Your task to perform on an android device: toggle priority inbox in the gmail app Image 0: 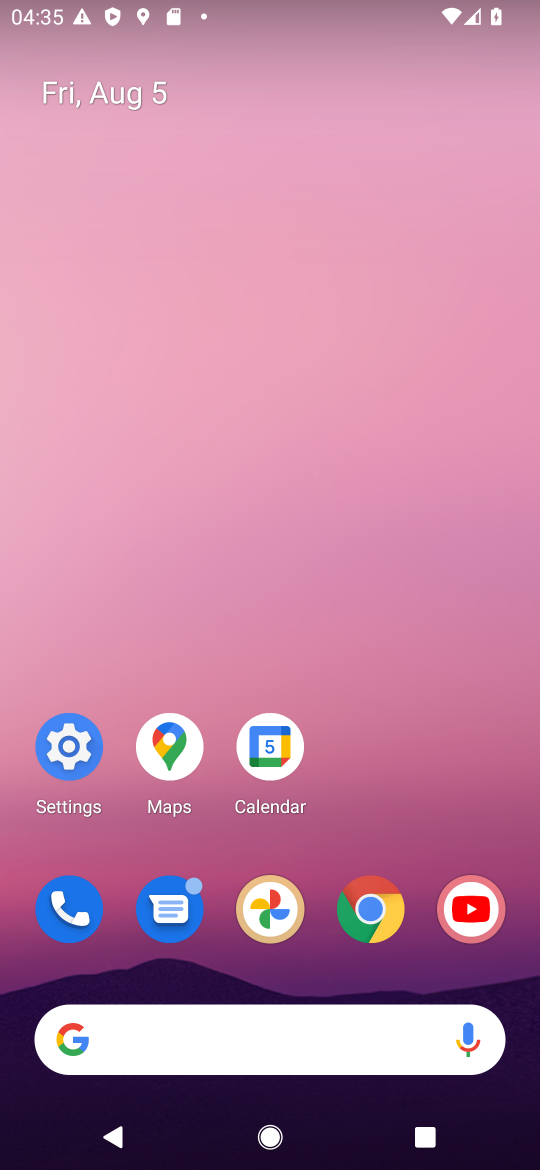
Step 0: drag from (382, 786) to (366, 104)
Your task to perform on an android device: toggle priority inbox in the gmail app Image 1: 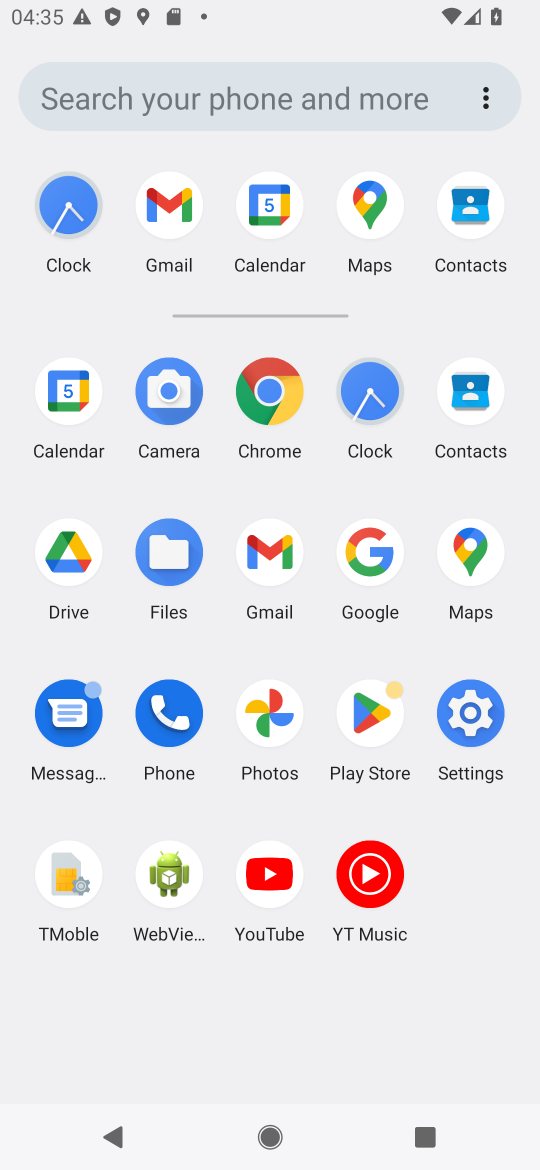
Step 1: click (159, 204)
Your task to perform on an android device: toggle priority inbox in the gmail app Image 2: 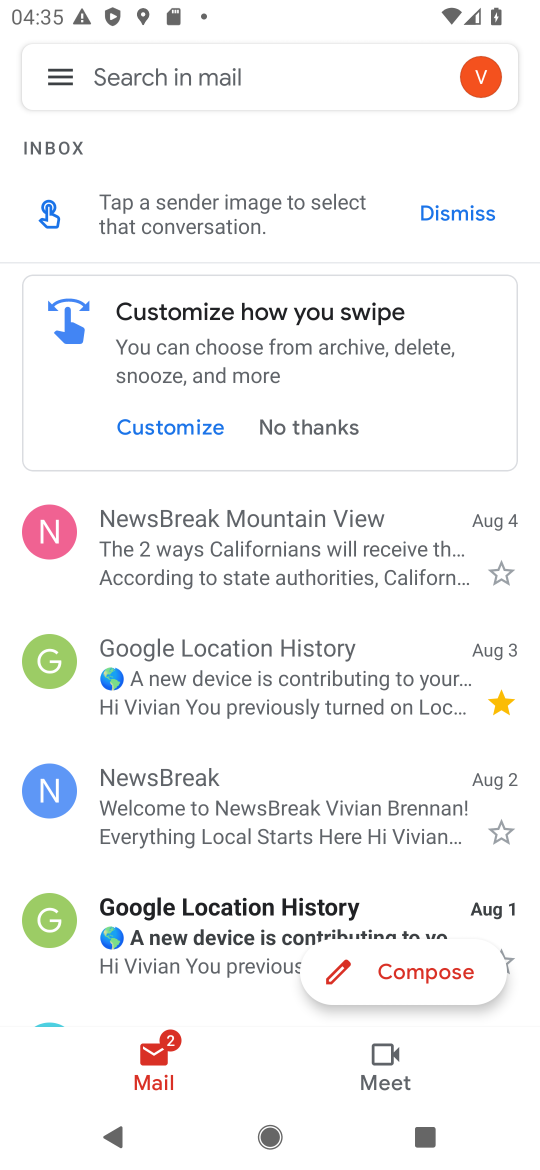
Step 2: click (55, 70)
Your task to perform on an android device: toggle priority inbox in the gmail app Image 3: 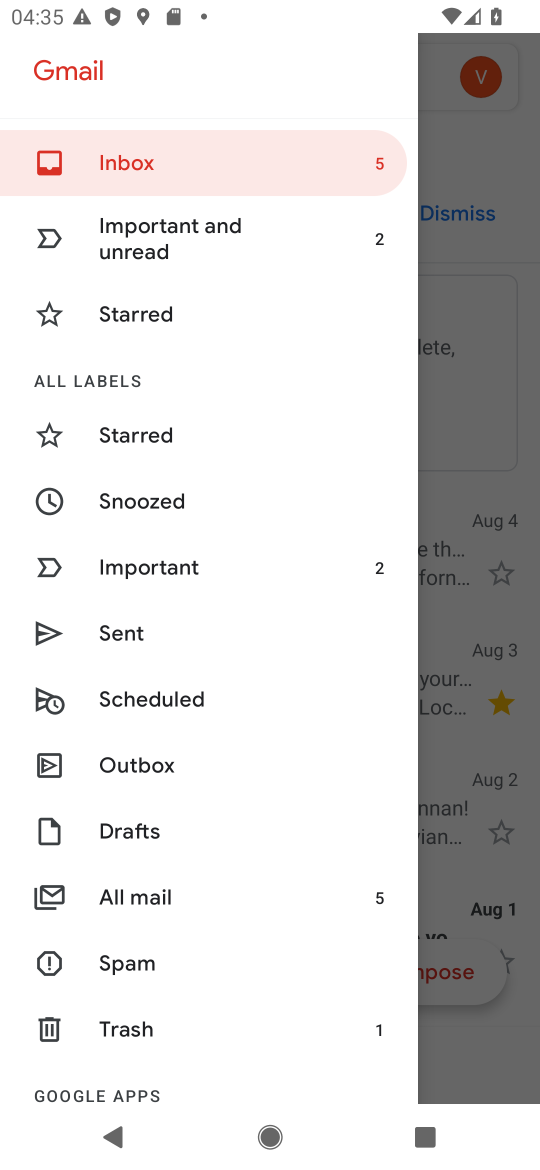
Step 3: drag from (236, 1025) to (249, 522)
Your task to perform on an android device: toggle priority inbox in the gmail app Image 4: 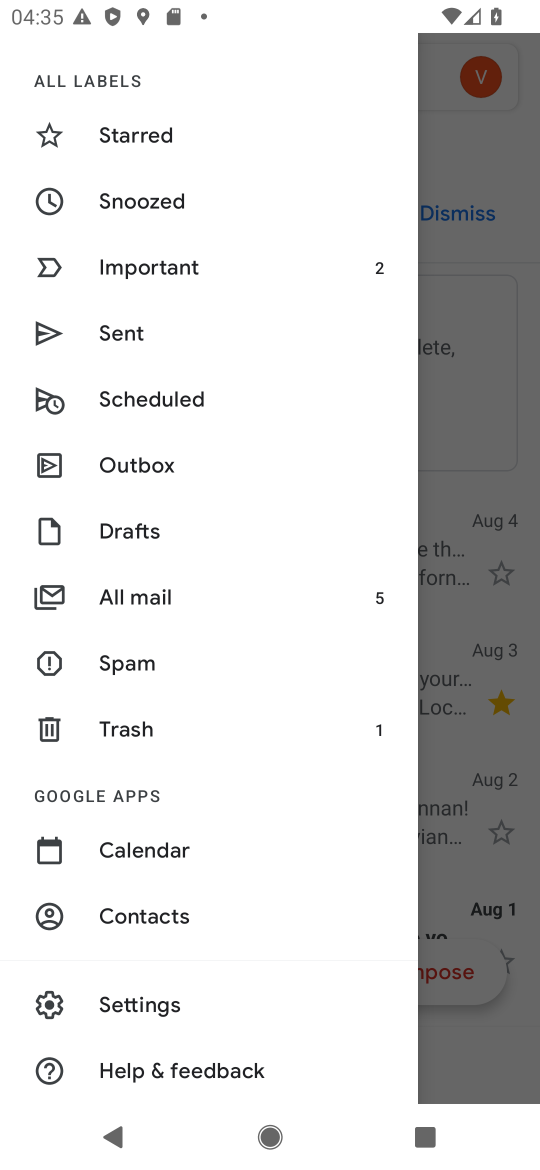
Step 4: click (134, 1003)
Your task to perform on an android device: toggle priority inbox in the gmail app Image 5: 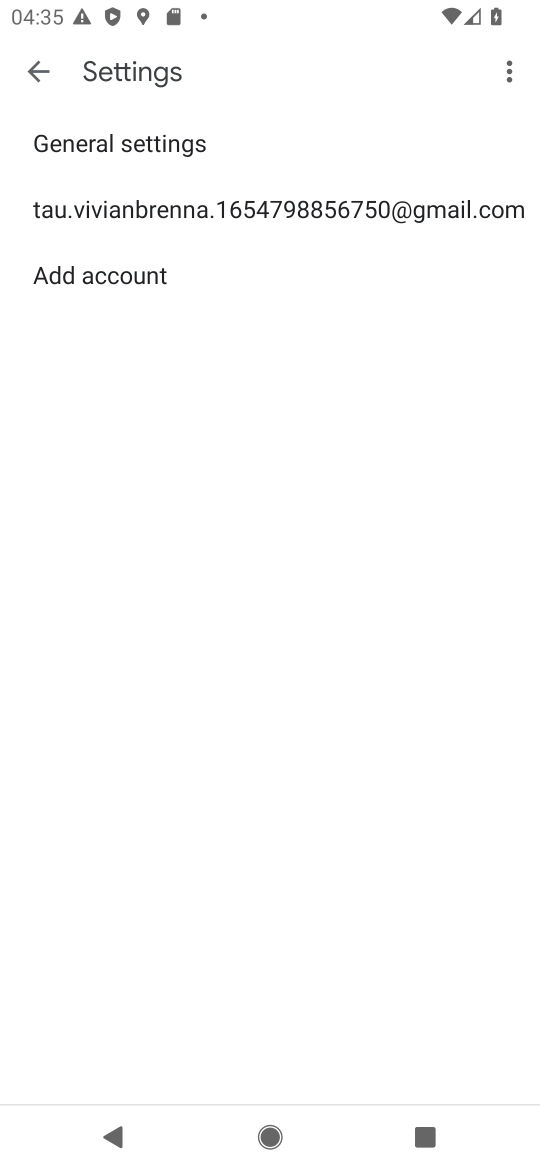
Step 5: click (170, 200)
Your task to perform on an android device: toggle priority inbox in the gmail app Image 6: 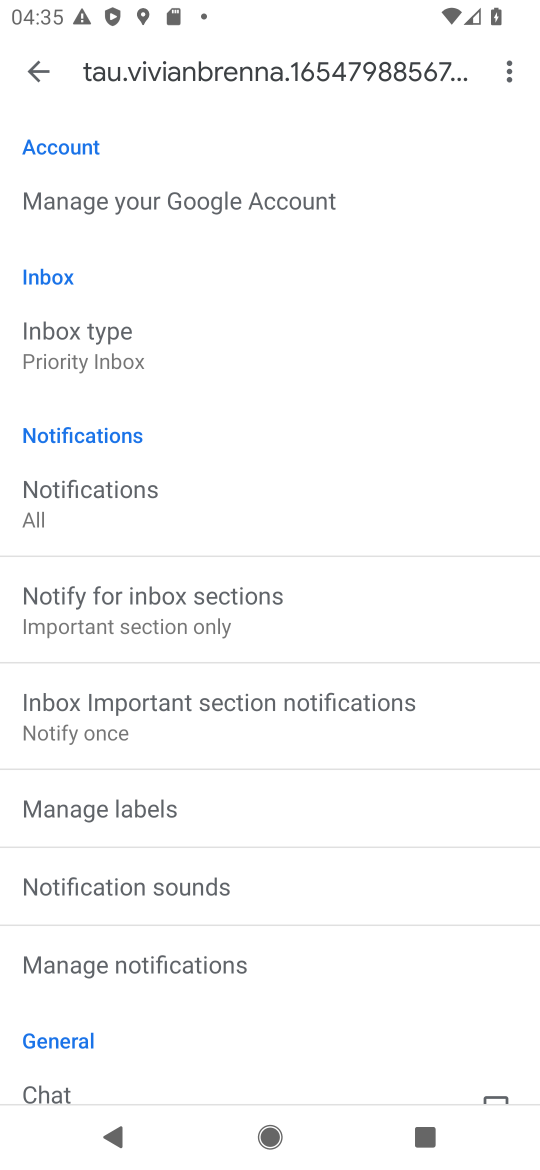
Step 6: click (76, 344)
Your task to perform on an android device: toggle priority inbox in the gmail app Image 7: 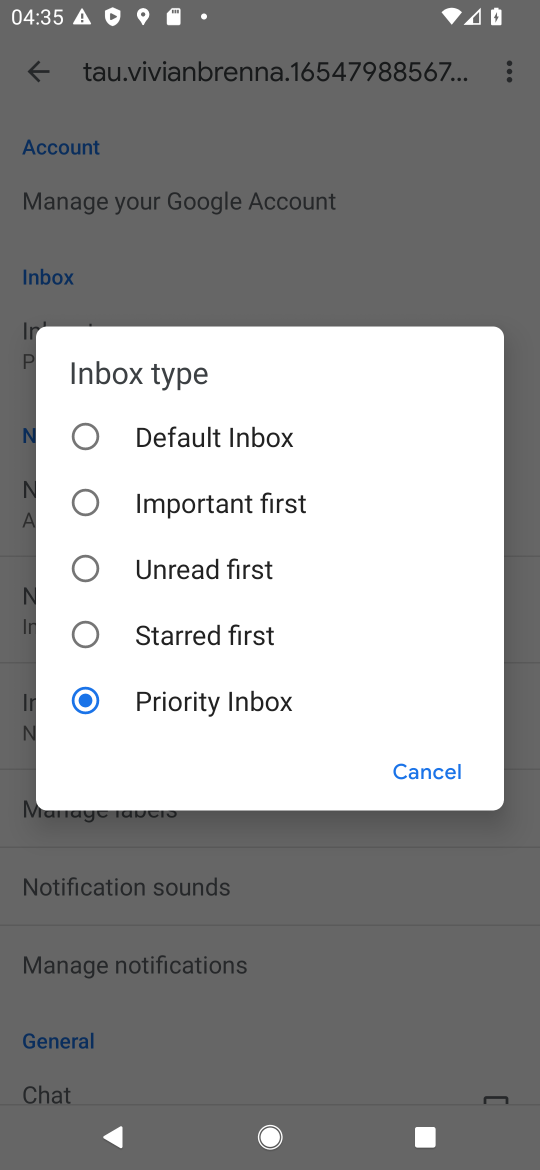
Step 7: click (81, 429)
Your task to perform on an android device: toggle priority inbox in the gmail app Image 8: 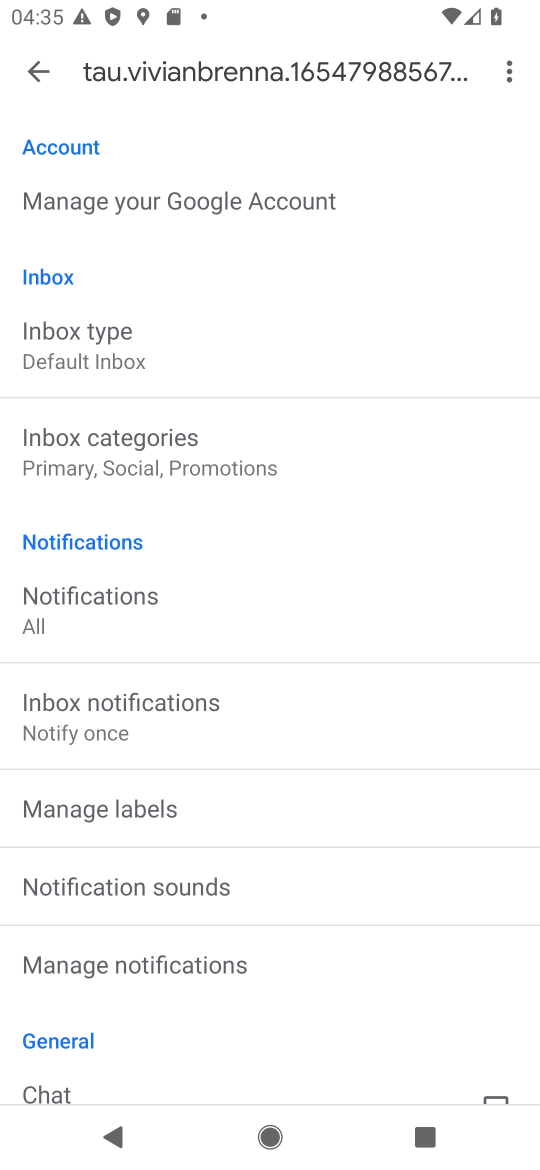
Step 8: task complete